Your task to perform on an android device: Open Yahoo.com Image 0: 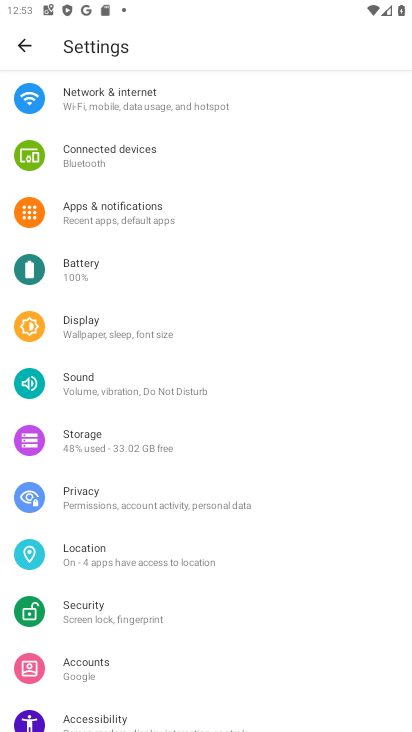
Step 0: press home button
Your task to perform on an android device: Open Yahoo.com Image 1: 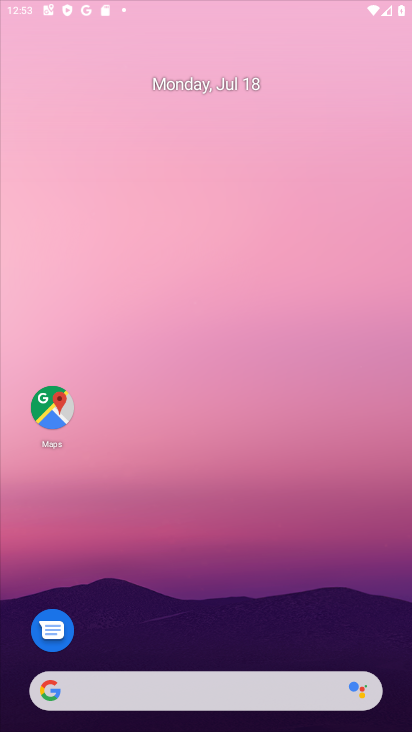
Step 1: drag from (300, 685) to (258, 16)
Your task to perform on an android device: Open Yahoo.com Image 2: 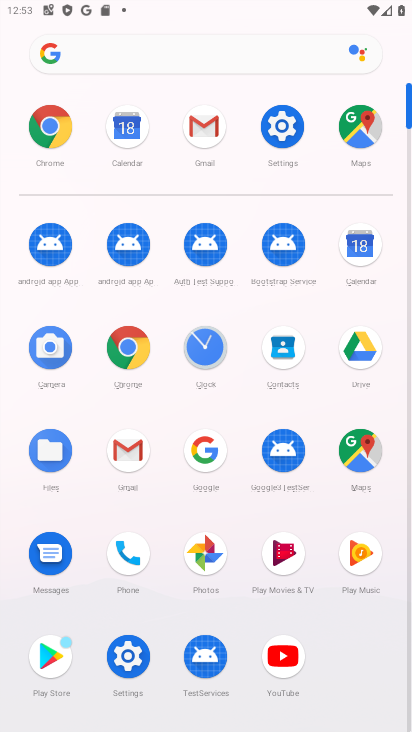
Step 2: click (132, 351)
Your task to perform on an android device: Open Yahoo.com Image 3: 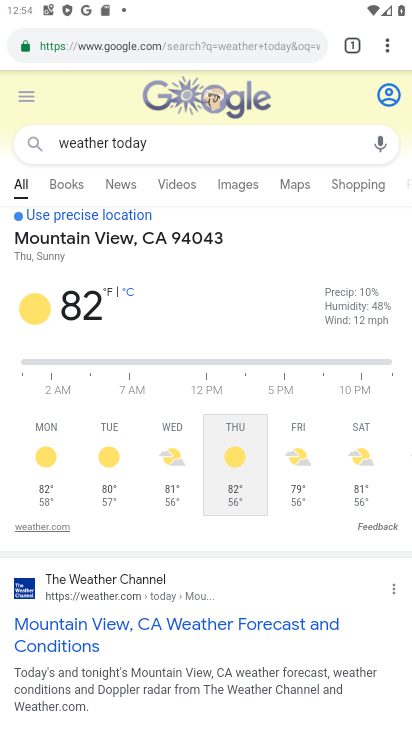
Step 3: click (190, 50)
Your task to perform on an android device: Open Yahoo.com Image 4: 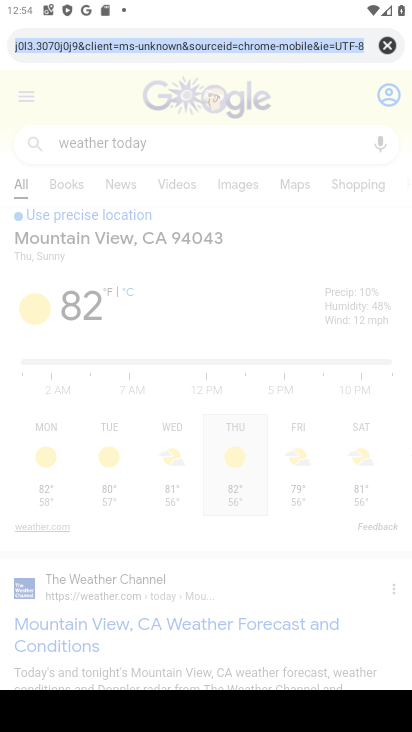
Step 4: type "yahoo.com"
Your task to perform on an android device: Open Yahoo.com Image 5: 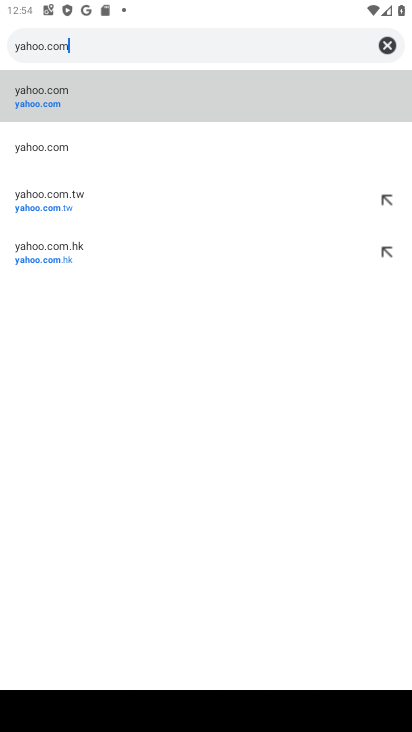
Step 5: click (142, 91)
Your task to perform on an android device: Open Yahoo.com Image 6: 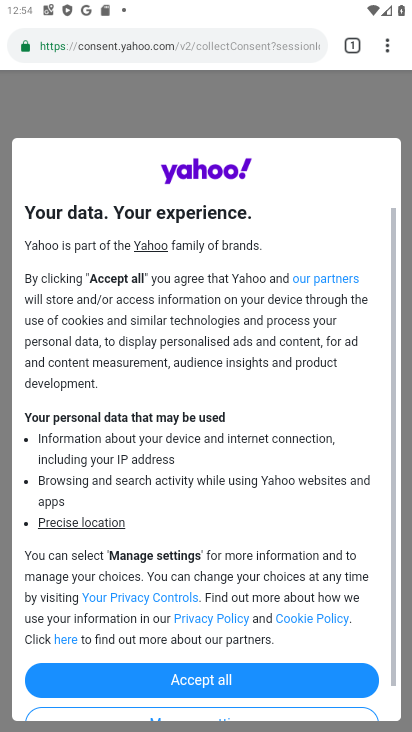
Step 6: task complete